Your task to perform on an android device: What is the recent news? Image 0: 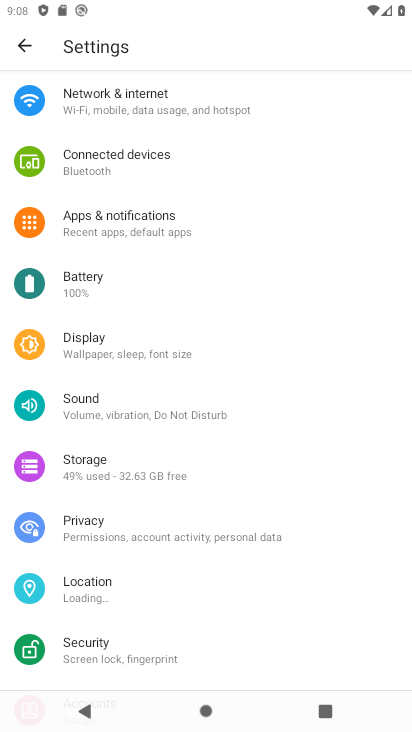
Step 0: press home button
Your task to perform on an android device: What is the recent news? Image 1: 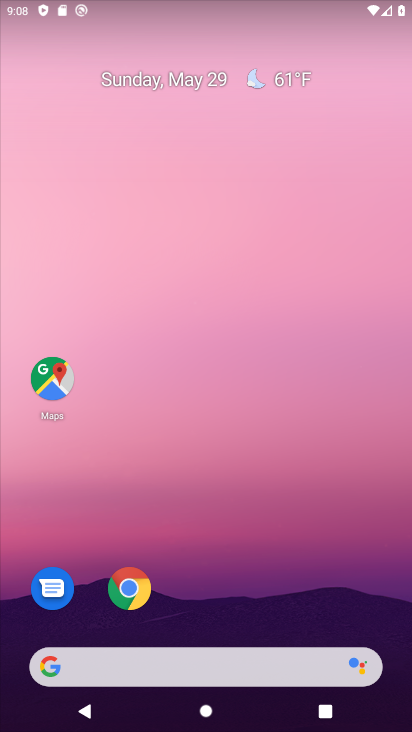
Step 1: drag from (316, 526) to (268, 101)
Your task to perform on an android device: What is the recent news? Image 2: 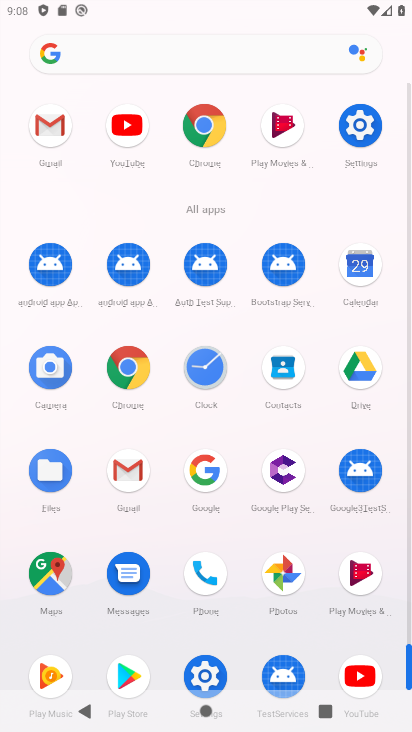
Step 2: click (130, 367)
Your task to perform on an android device: What is the recent news? Image 3: 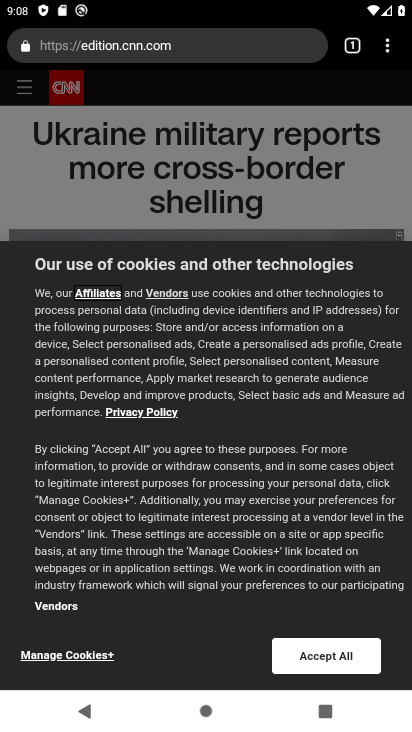
Step 3: click (250, 38)
Your task to perform on an android device: What is the recent news? Image 4: 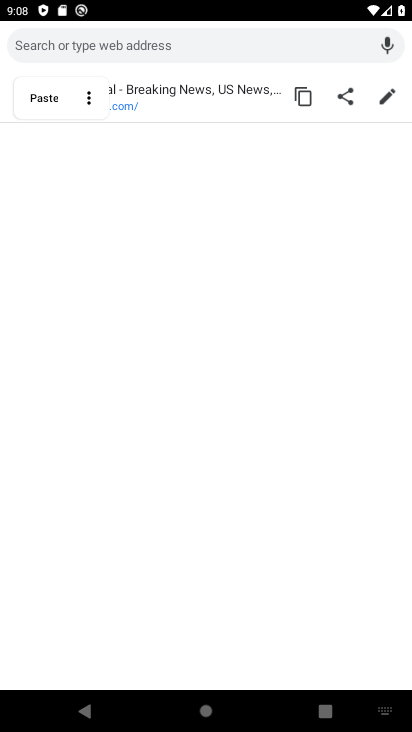
Step 4: type "news"
Your task to perform on an android device: What is the recent news? Image 5: 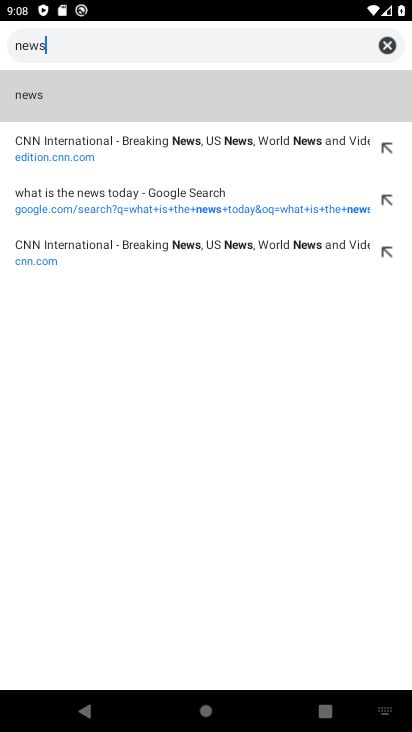
Step 5: click (50, 104)
Your task to perform on an android device: What is the recent news? Image 6: 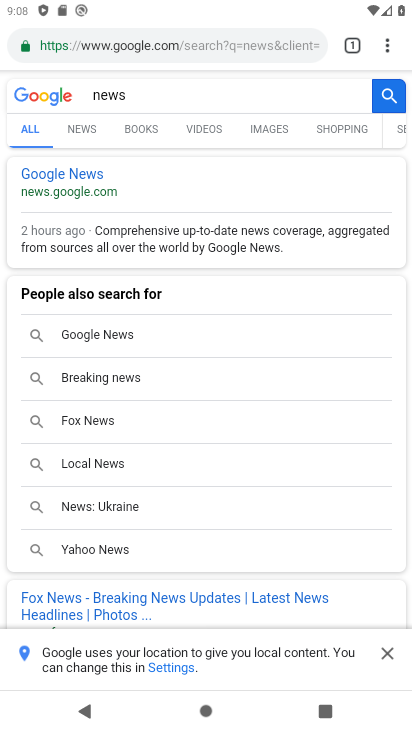
Step 6: click (82, 175)
Your task to perform on an android device: What is the recent news? Image 7: 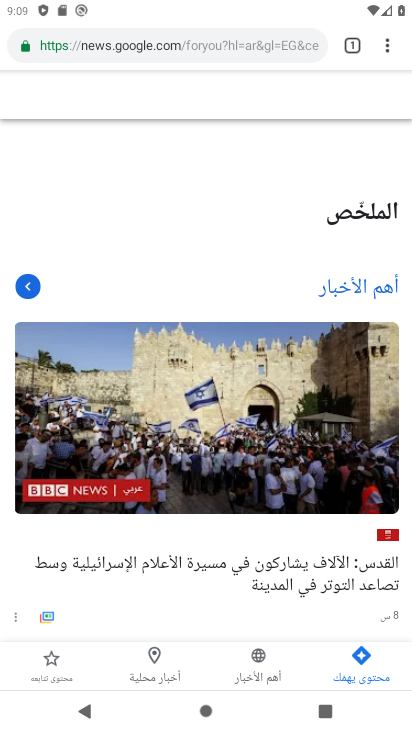
Step 7: task complete